Your task to perform on an android device: Add macbook pro to the cart on costco.com Image 0: 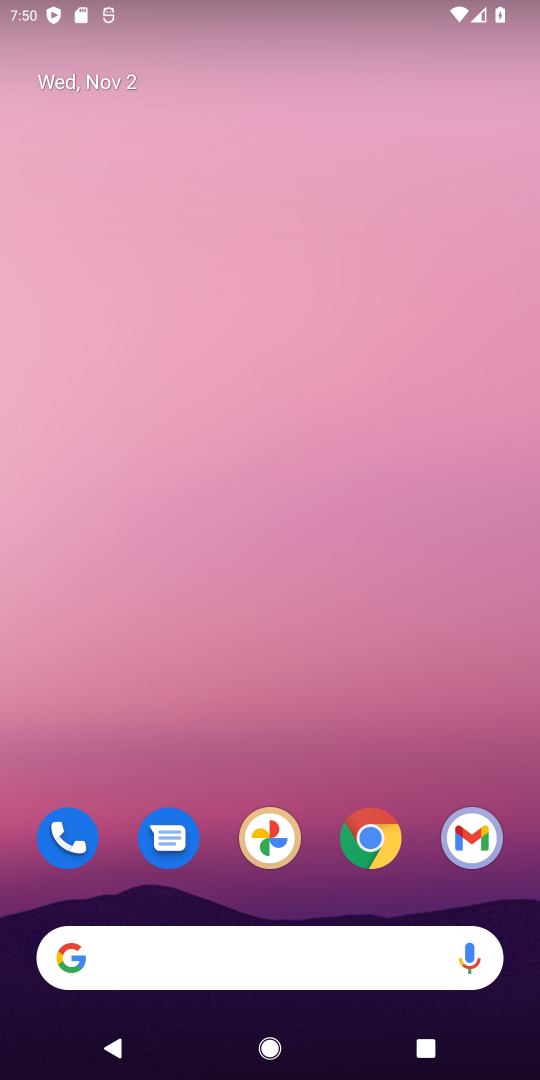
Step 0: click (343, 843)
Your task to perform on an android device: Add macbook pro to the cart on costco.com Image 1: 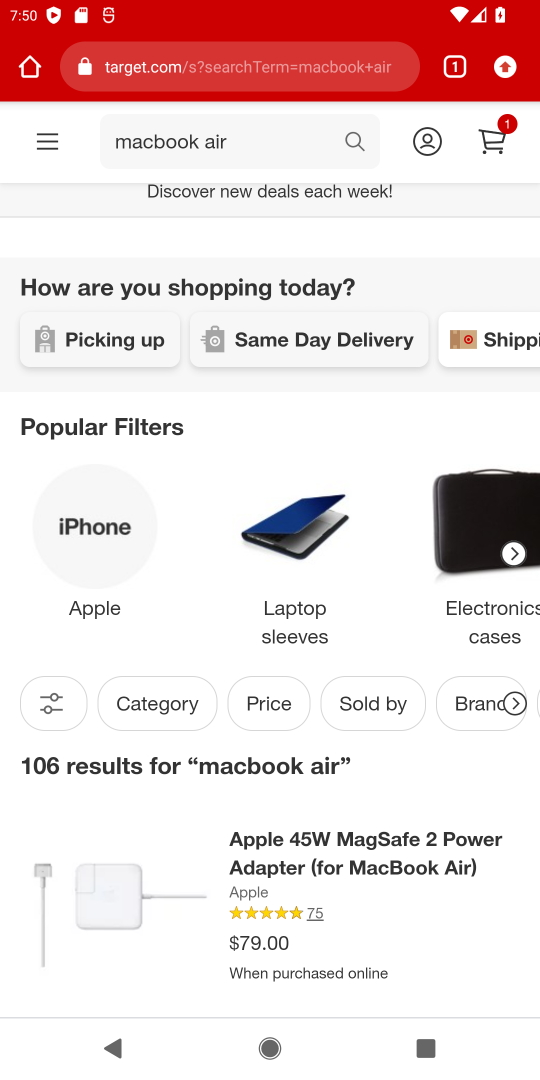
Step 1: click (288, 76)
Your task to perform on an android device: Add macbook pro to the cart on costco.com Image 2: 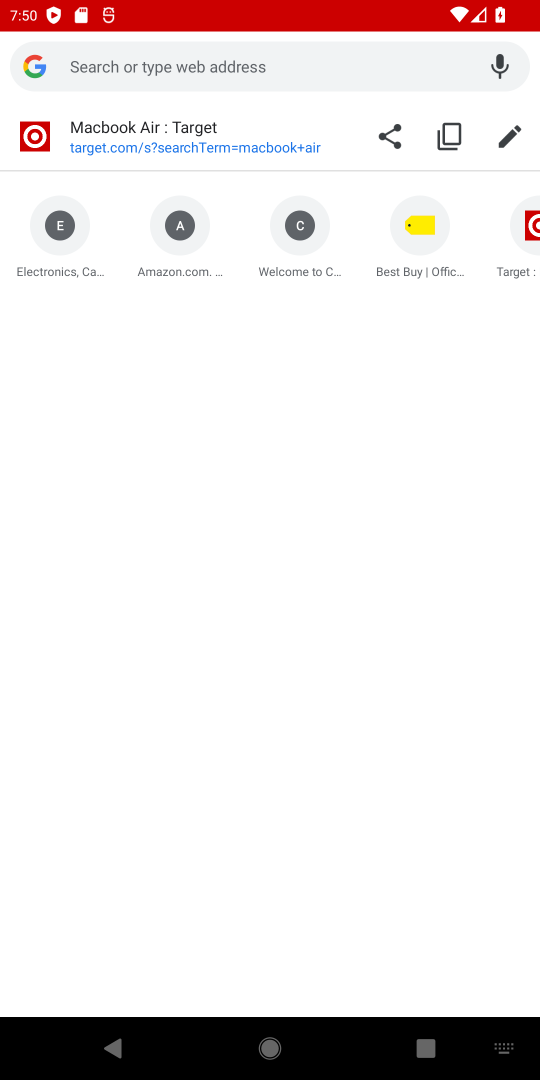
Step 2: type "costco.com"
Your task to perform on an android device: Add macbook pro to the cart on costco.com Image 3: 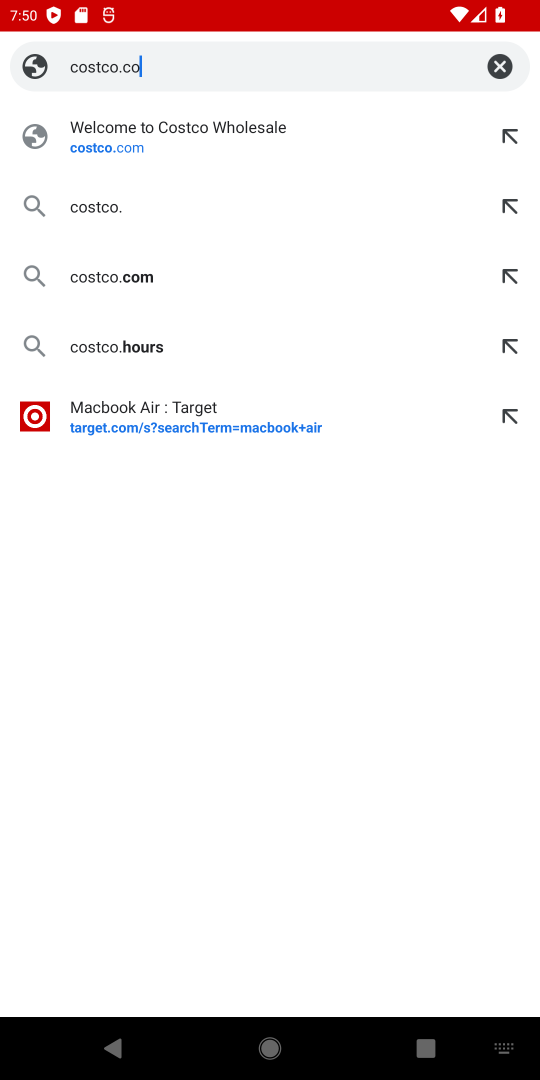
Step 3: type ""
Your task to perform on an android device: Add macbook pro to the cart on costco.com Image 4: 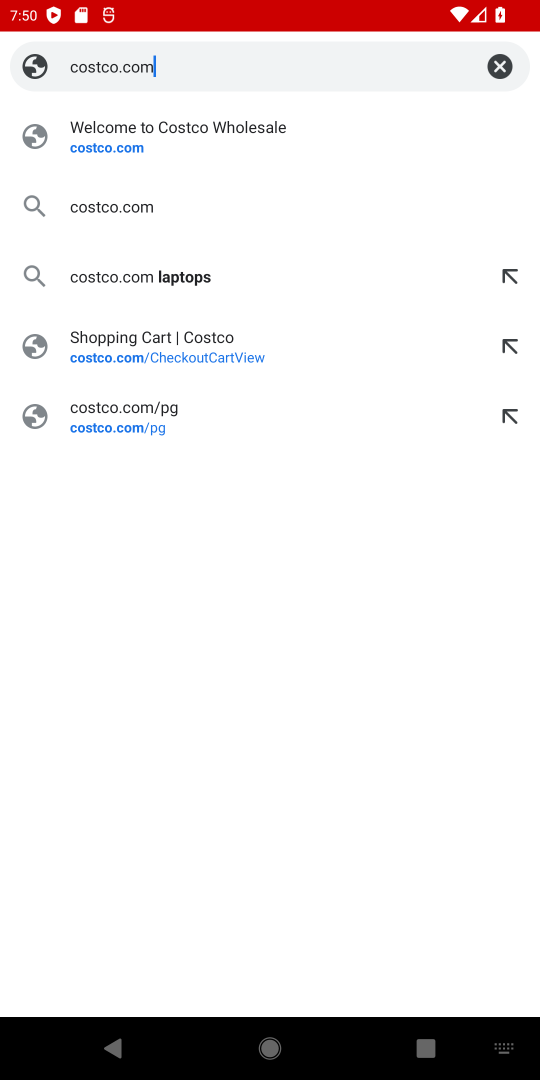
Step 4: press enter
Your task to perform on an android device: Add macbook pro to the cart on costco.com Image 5: 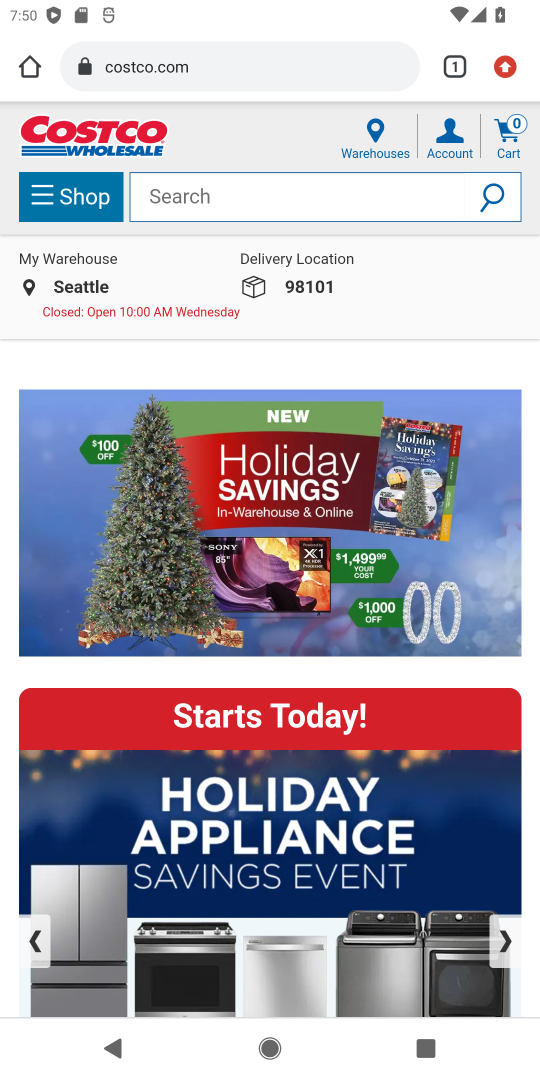
Step 5: click (331, 205)
Your task to perform on an android device: Add macbook pro to the cart on costco.com Image 6: 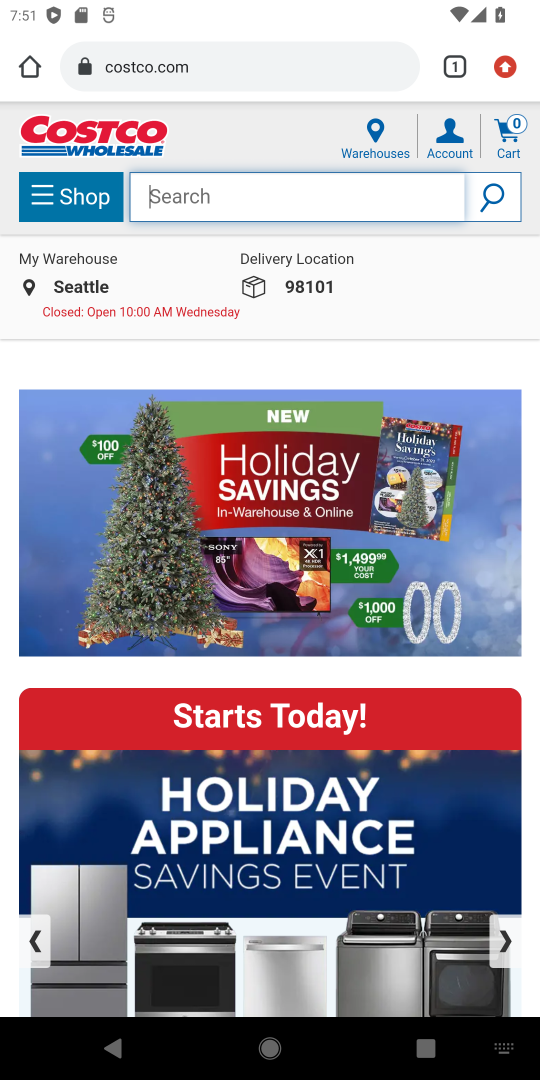
Step 6: type "macbook pro"
Your task to perform on an android device: Add macbook pro to the cart on costco.com Image 7: 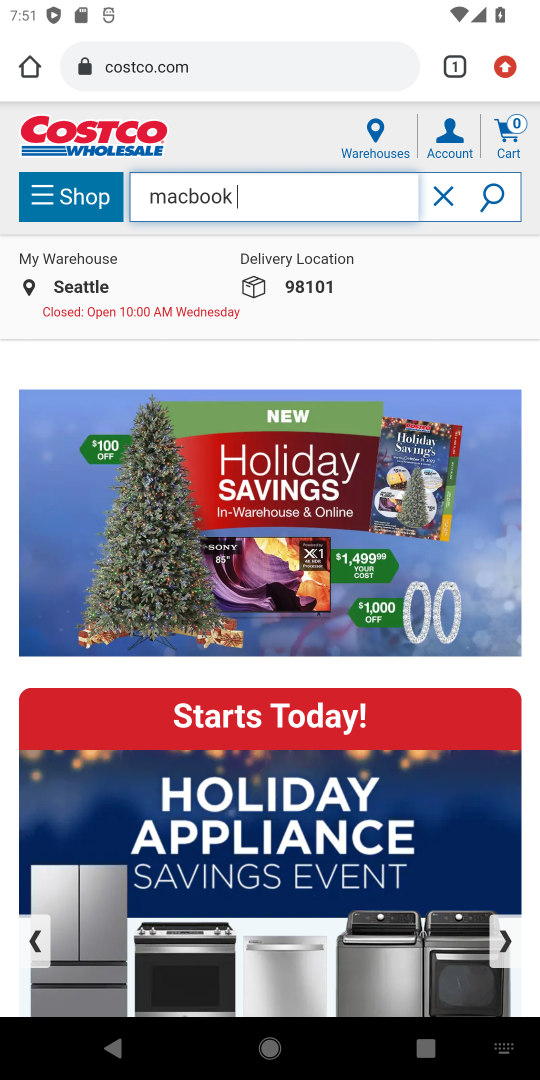
Step 7: type ""
Your task to perform on an android device: Add macbook pro to the cart on costco.com Image 8: 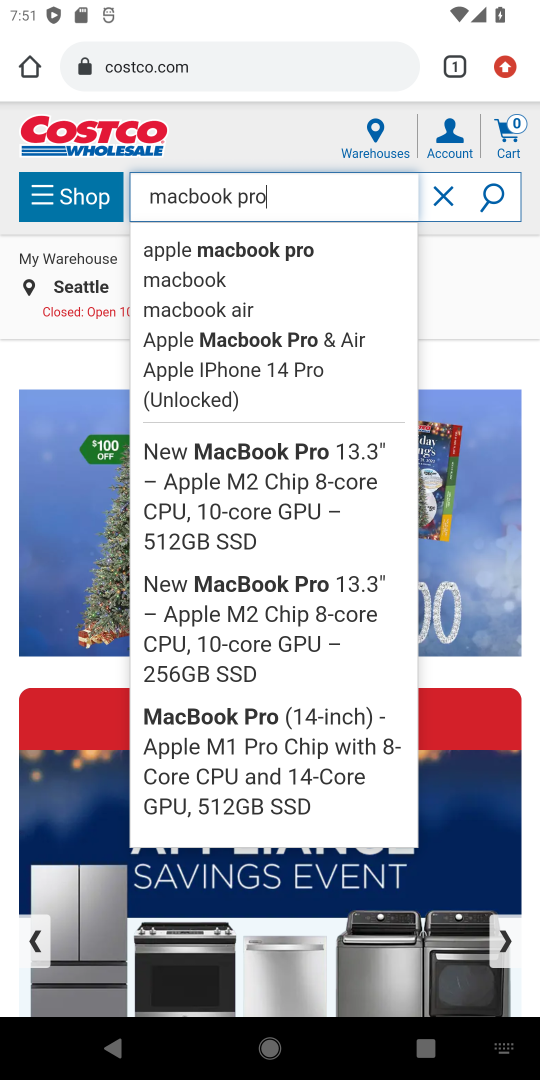
Step 8: press enter
Your task to perform on an android device: Add macbook pro to the cart on costco.com Image 9: 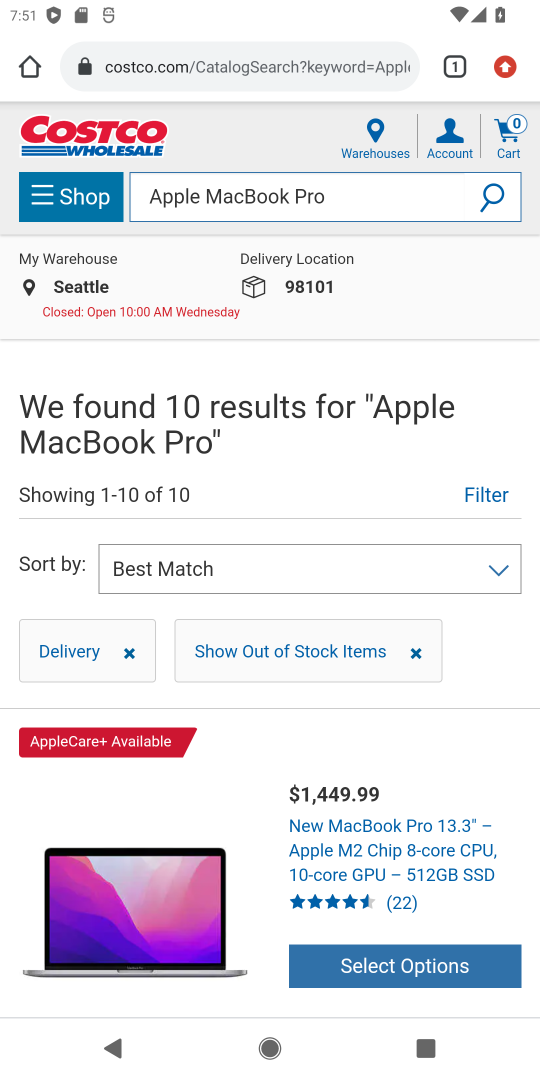
Step 9: drag from (326, 856) to (343, 663)
Your task to perform on an android device: Add macbook pro to the cart on costco.com Image 10: 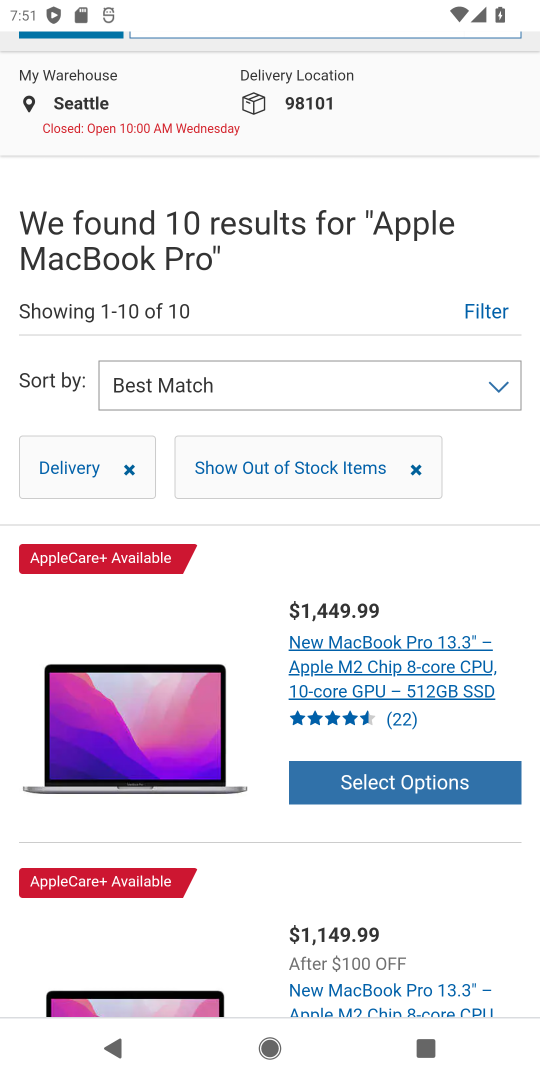
Step 10: click (371, 654)
Your task to perform on an android device: Add macbook pro to the cart on costco.com Image 11: 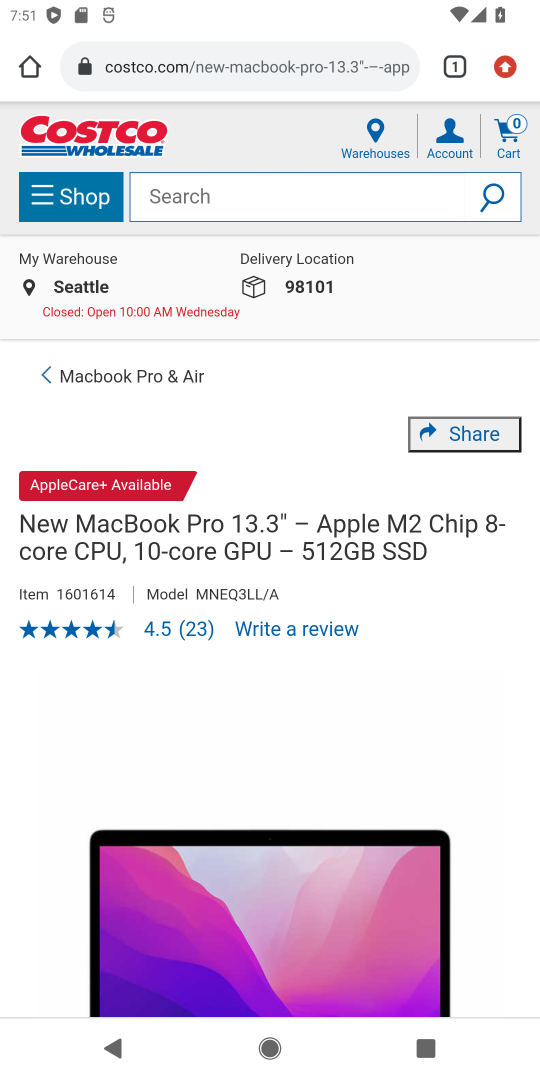
Step 11: drag from (377, 743) to (404, 223)
Your task to perform on an android device: Add macbook pro to the cart on costco.com Image 12: 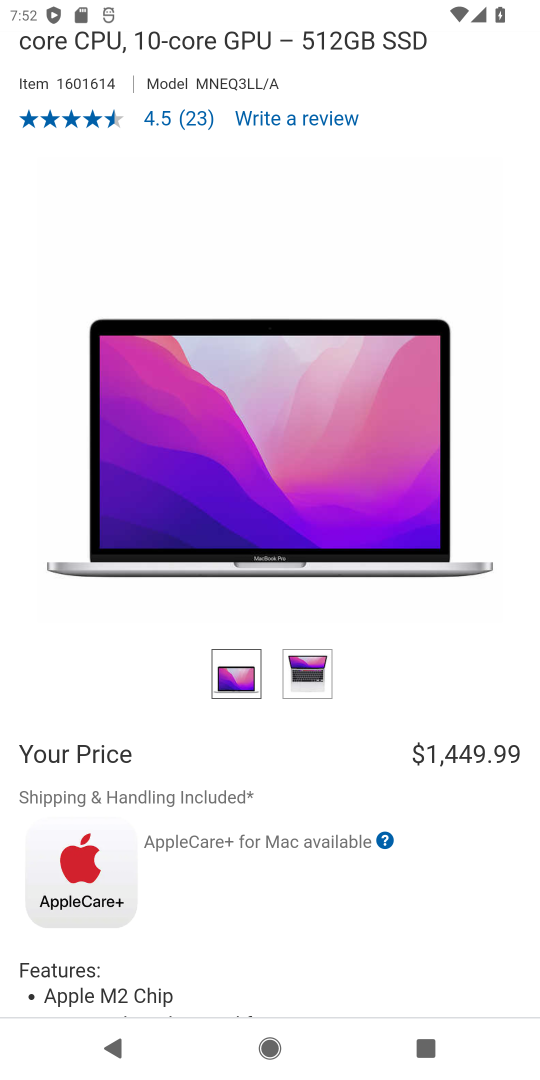
Step 12: drag from (317, 853) to (275, 227)
Your task to perform on an android device: Add macbook pro to the cart on costco.com Image 13: 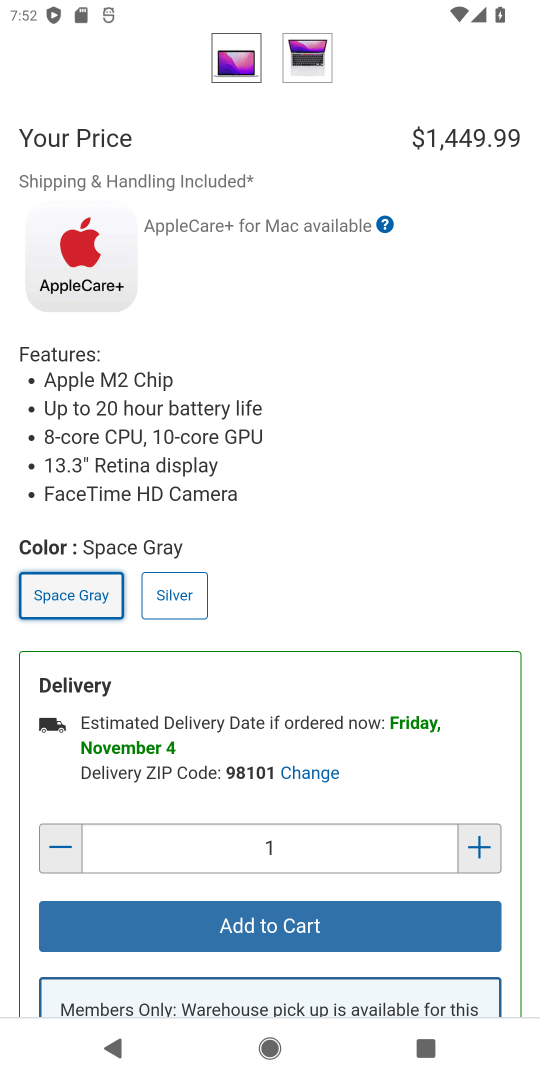
Step 13: drag from (374, 752) to (379, 520)
Your task to perform on an android device: Add macbook pro to the cart on costco.com Image 14: 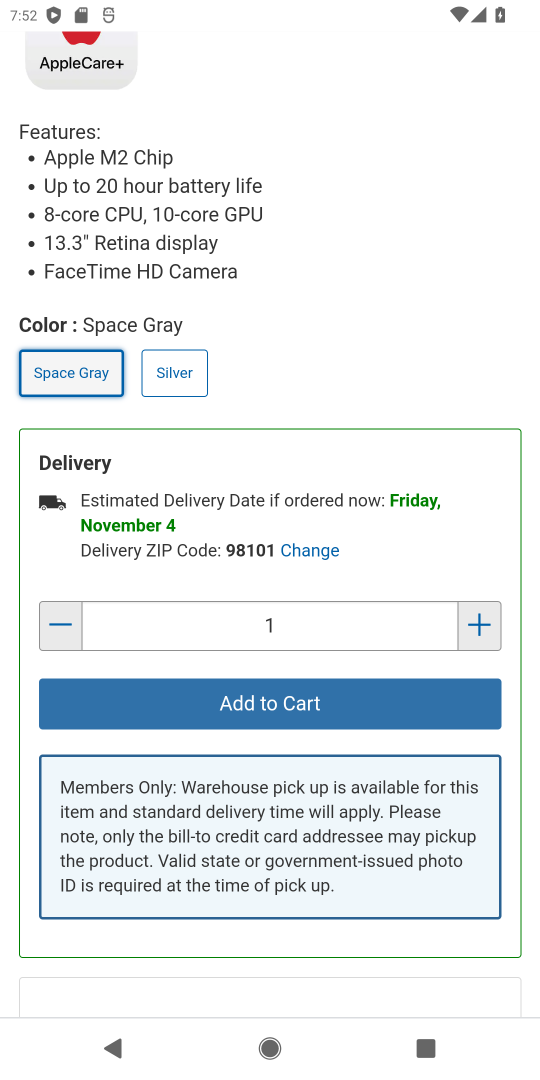
Step 14: click (378, 703)
Your task to perform on an android device: Add macbook pro to the cart on costco.com Image 15: 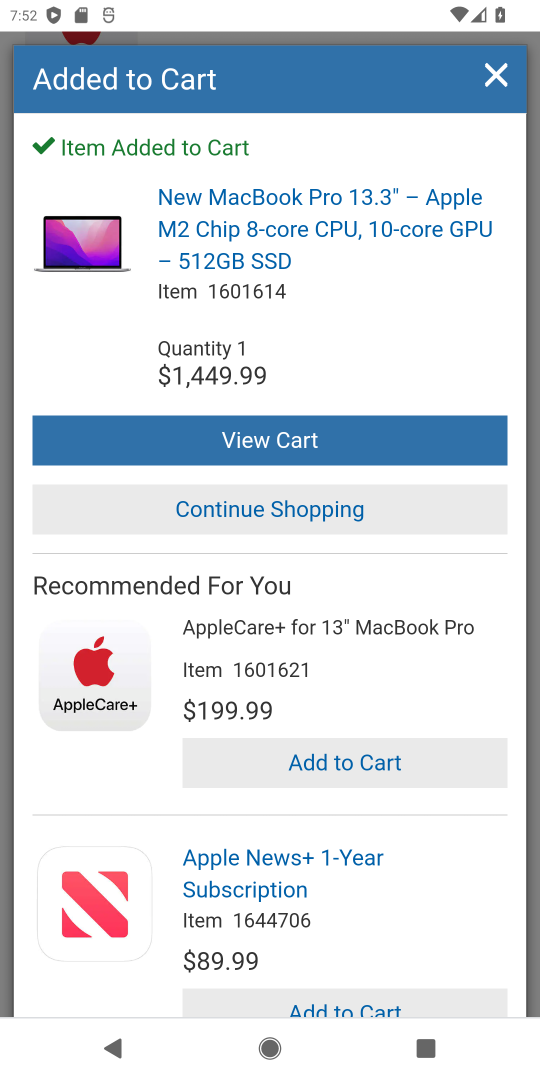
Step 15: click (274, 450)
Your task to perform on an android device: Add macbook pro to the cart on costco.com Image 16: 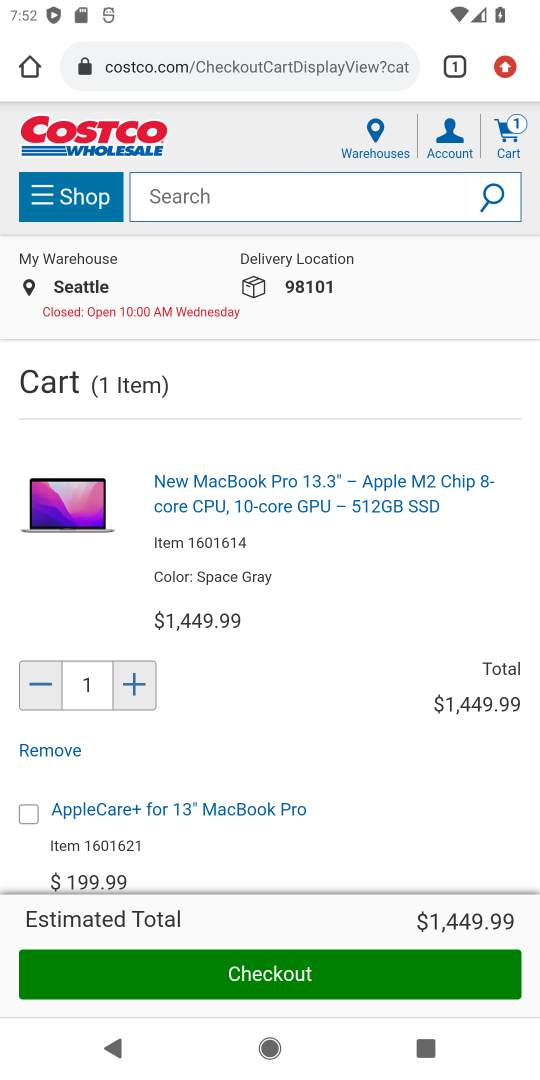
Step 16: click (386, 983)
Your task to perform on an android device: Add macbook pro to the cart on costco.com Image 17: 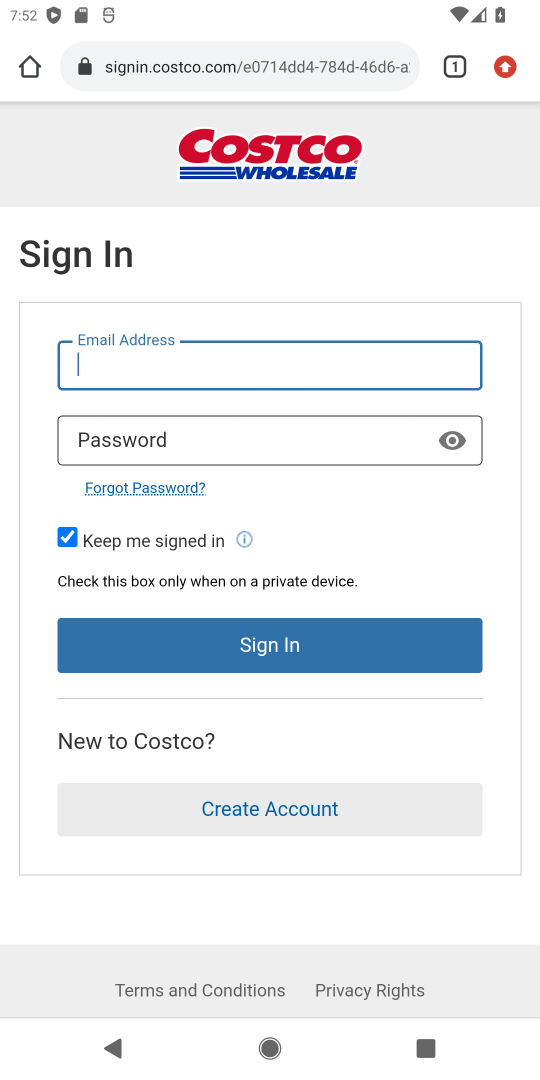
Step 17: task complete